Your task to perform on an android device: Open accessibility settings Image 0: 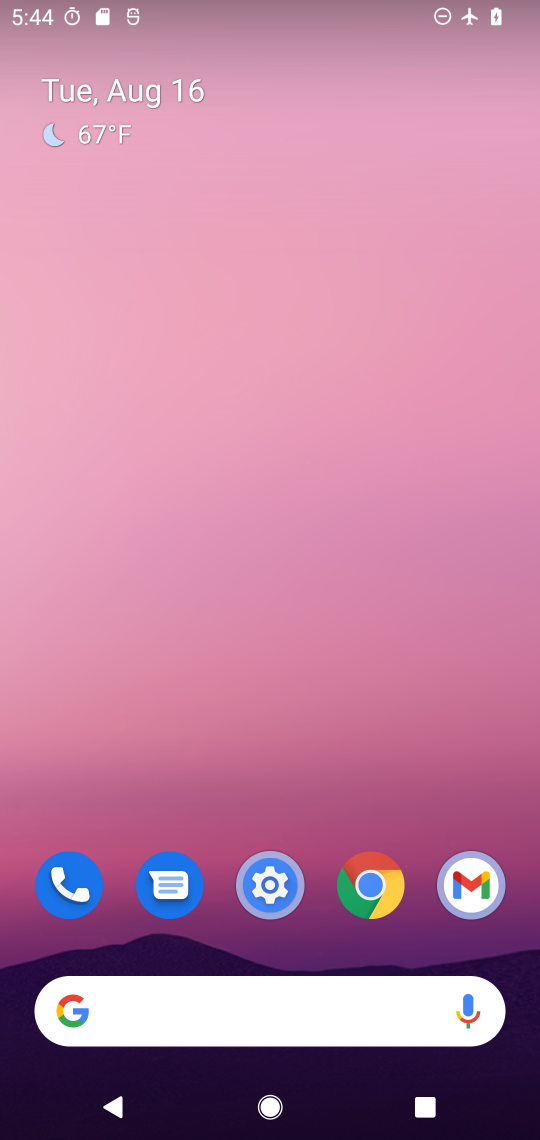
Step 0: drag from (301, 924) to (316, 237)
Your task to perform on an android device: Open accessibility settings Image 1: 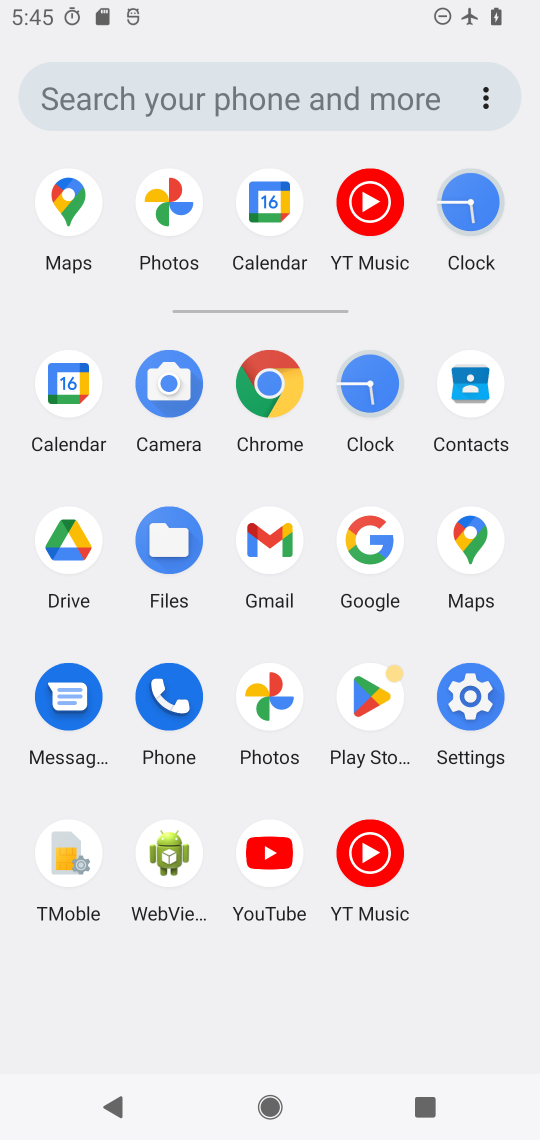
Step 1: click (464, 682)
Your task to perform on an android device: Open accessibility settings Image 2: 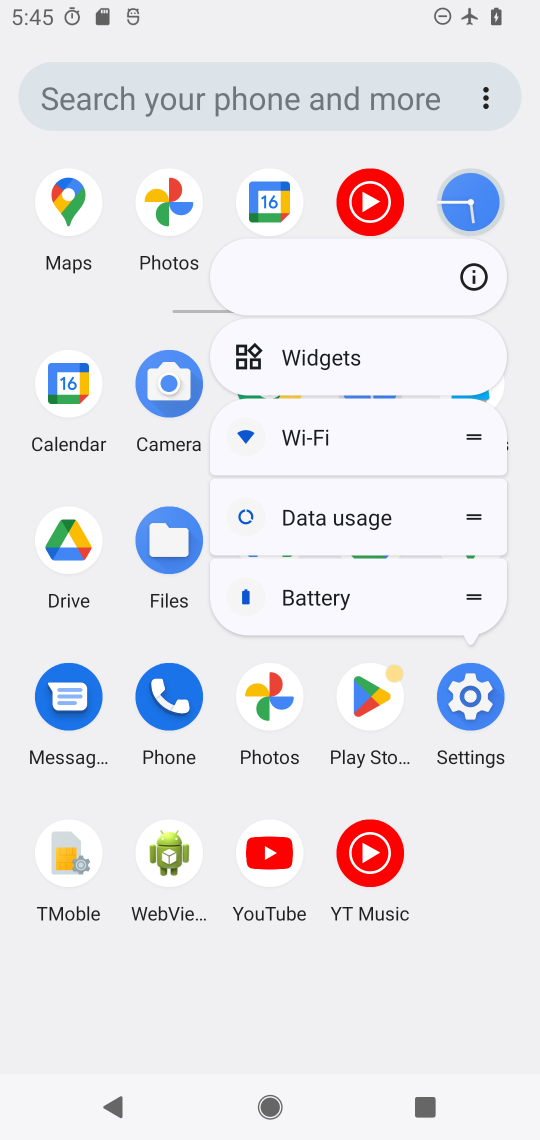
Step 2: click (474, 674)
Your task to perform on an android device: Open accessibility settings Image 3: 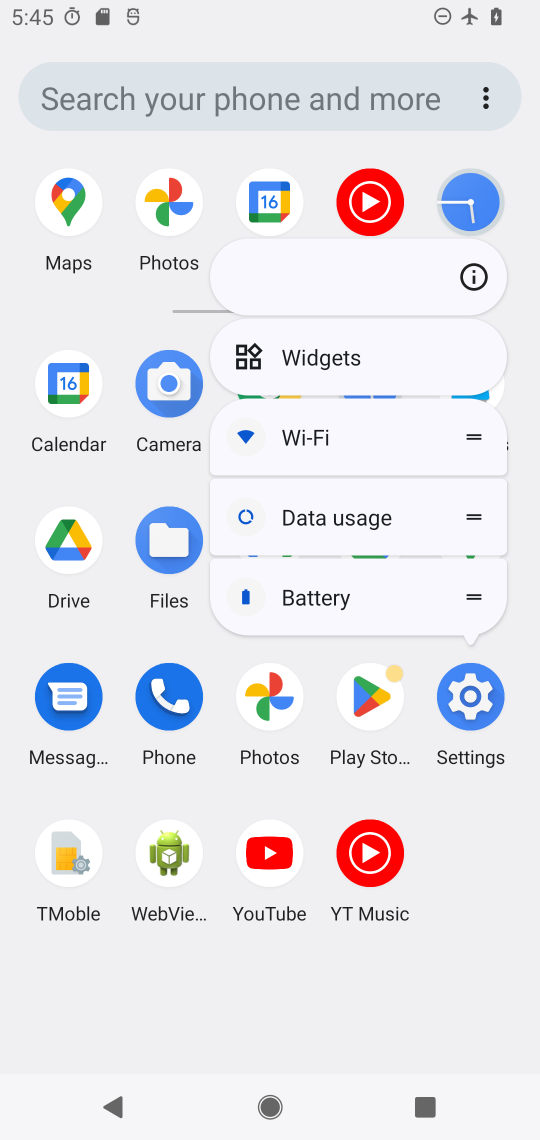
Step 3: click (476, 695)
Your task to perform on an android device: Open accessibility settings Image 4: 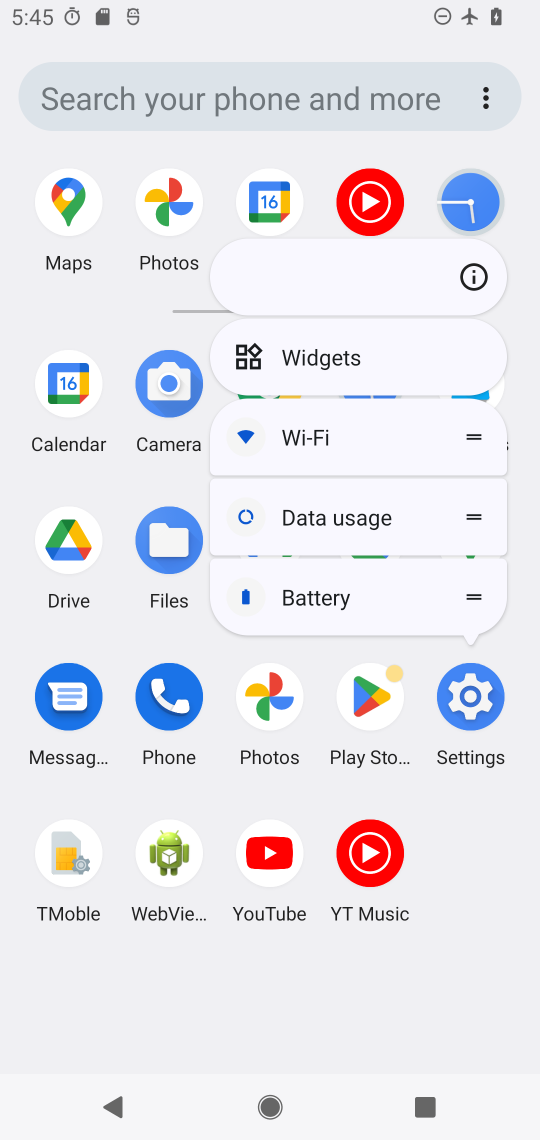
Step 4: click (476, 695)
Your task to perform on an android device: Open accessibility settings Image 5: 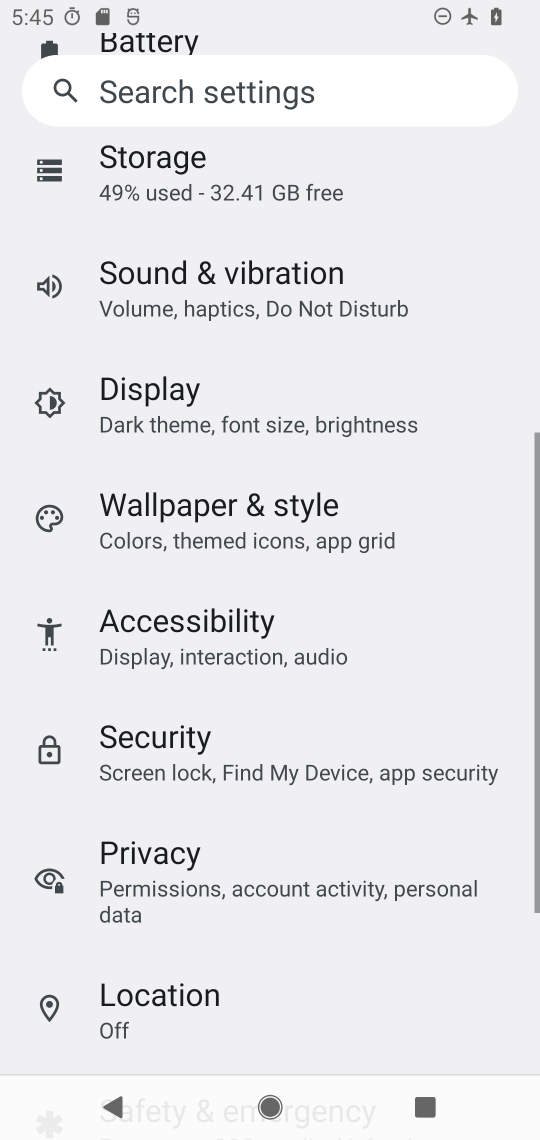
Step 5: click (476, 695)
Your task to perform on an android device: Open accessibility settings Image 6: 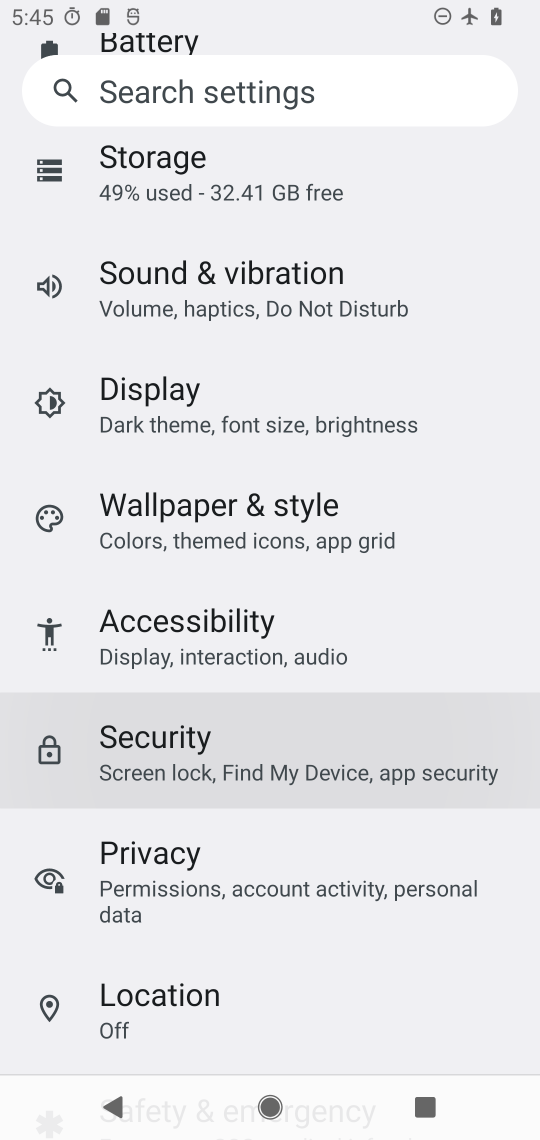
Step 6: click (165, 585)
Your task to perform on an android device: Open accessibility settings Image 7: 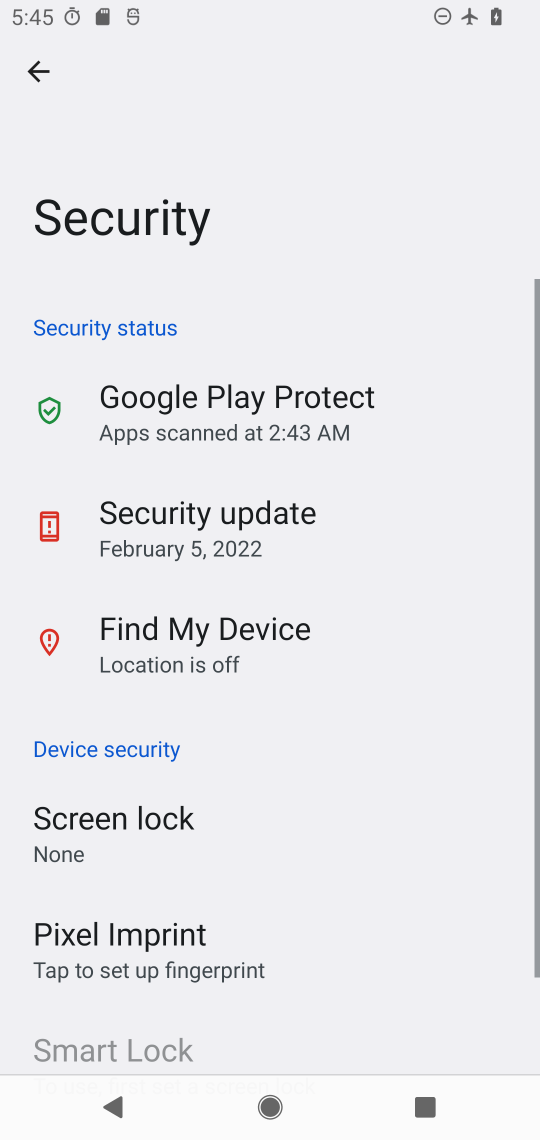
Step 7: click (27, 77)
Your task to perform on an android device: Open accessibility settings Image 8: 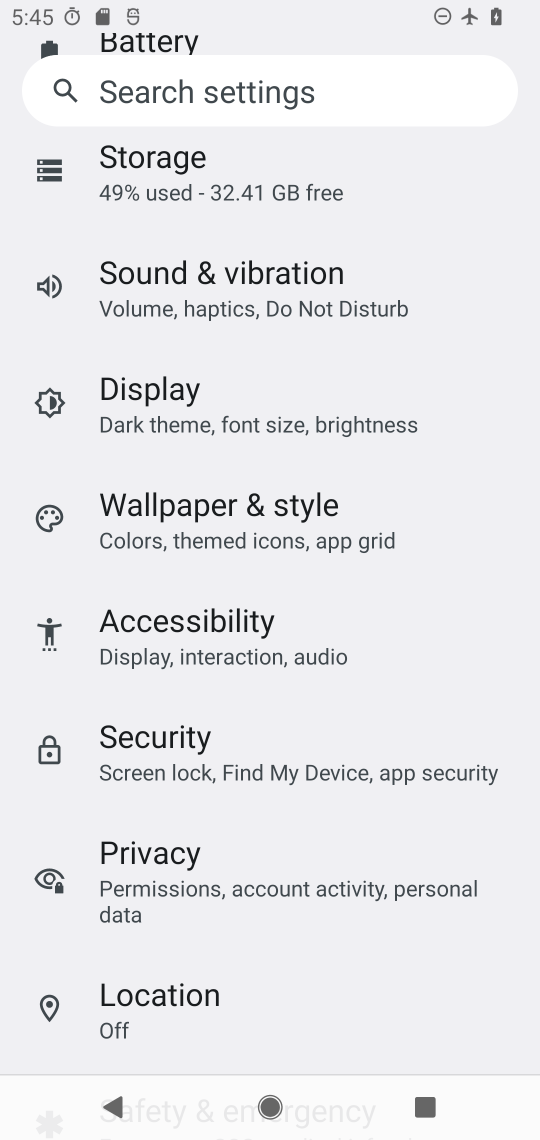
Step 8: click (234, 646)
Your task to perform on an android device: Open accessibility settings Image 9: 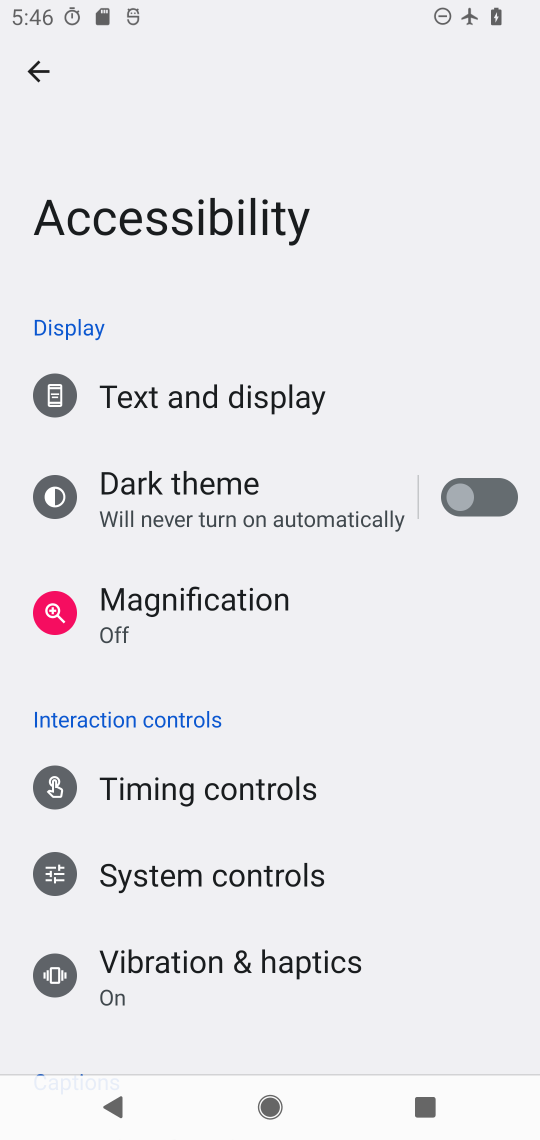
Step 9: task complete